Your task to perform on an android device: Open Chrome and go to settings Image 0: 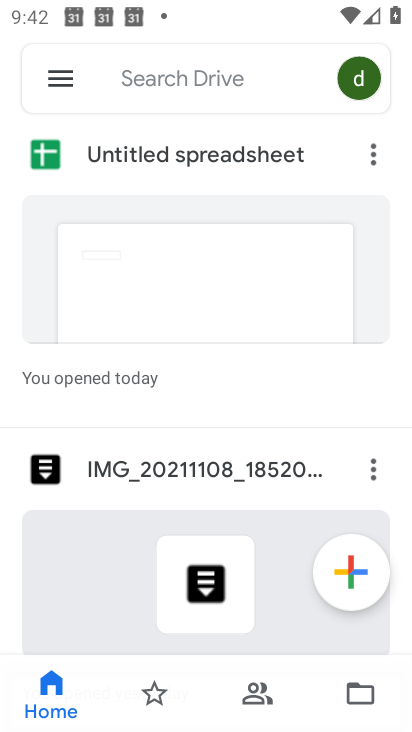
Step 0: press home button
Your task to perform on an android device: Open Chrome and go to settings Image 1: 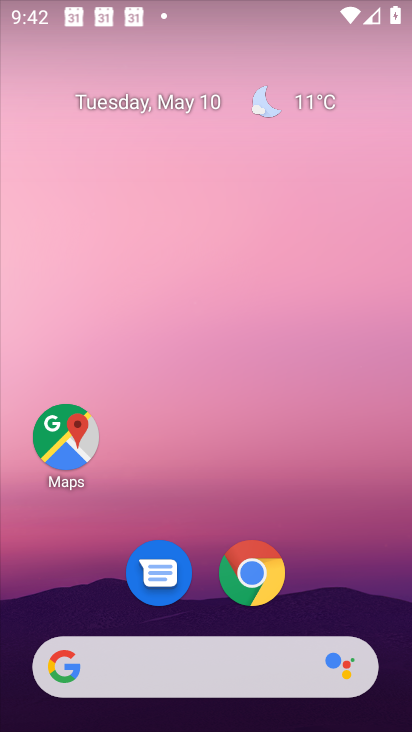
Step 1: click (252, 582)
Your task to perform on an android device: Open Chrome and go to settings Image 2: 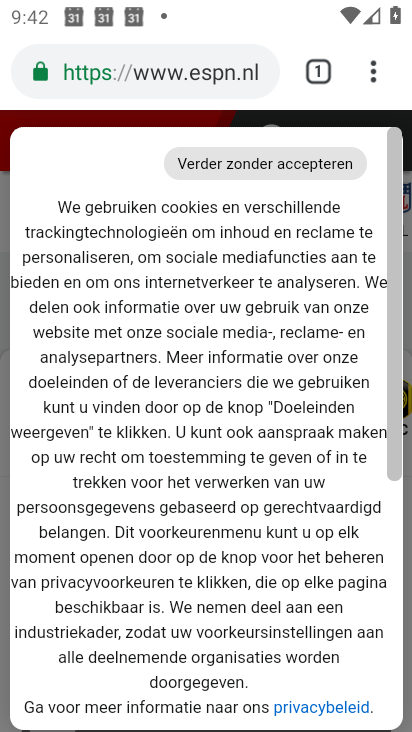
Step 2: task complete